Your task to perform on an android device: change text size in settings app Image 0: 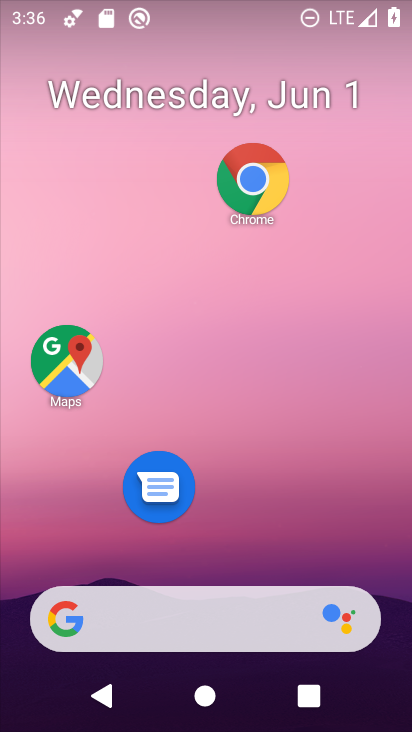
Step 0: drag from (297, 583) to (218, 176)
Your task to perform on an android device: change text size in settings app Image 1: 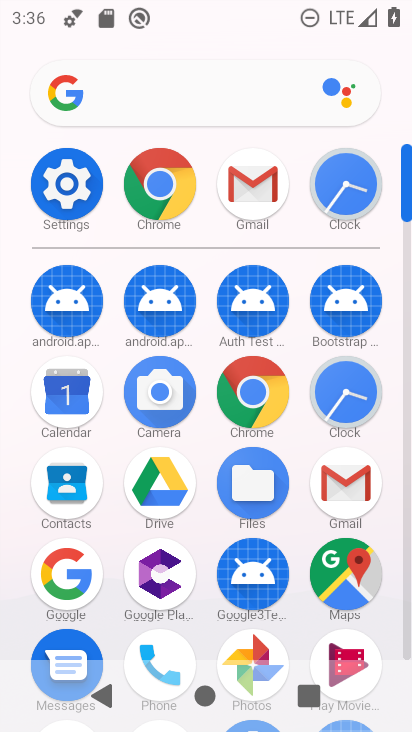
Step 1: click (79, 176)
Your task to perform on an android device: change text size in settings app Image 2: 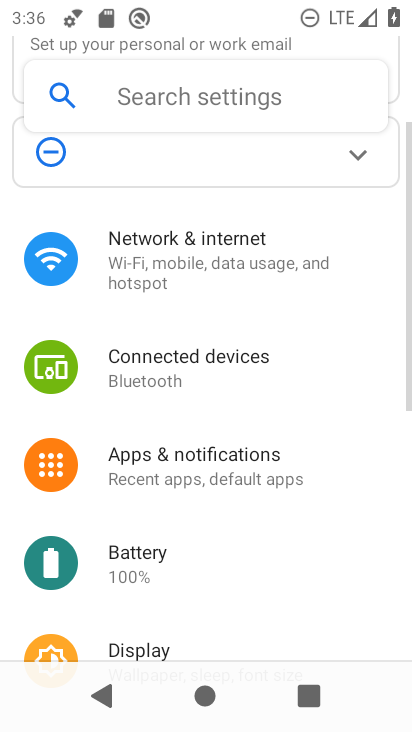
Step 2: drag from (186, 593) to (214, 188)
Your task to perform on an android device: change text size in settings app Image 3: 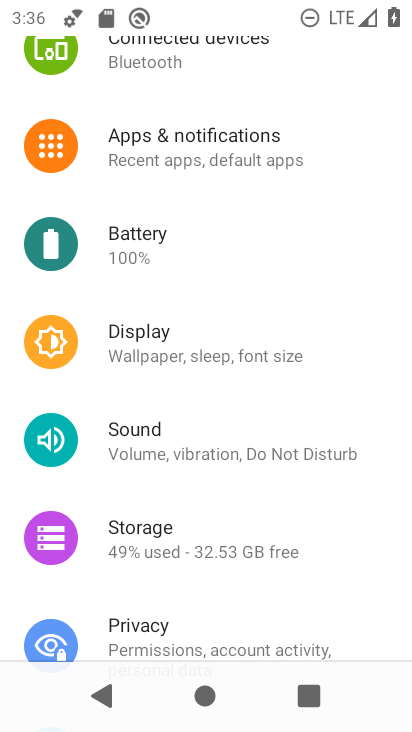
Step 3: drag from (211, 529) to (232, 226)
Your task to perform on an android device: change text size in settings app Image 4: 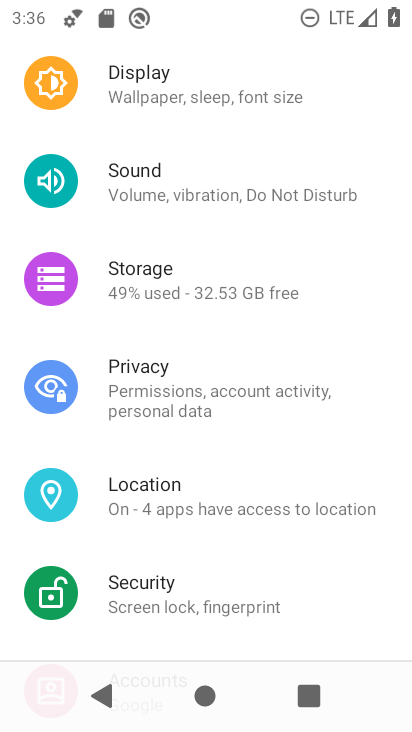
Step 4: drag from (180, 520) to (227, 258)
Your task to perform on an android device: change text size in settings app Image 5: 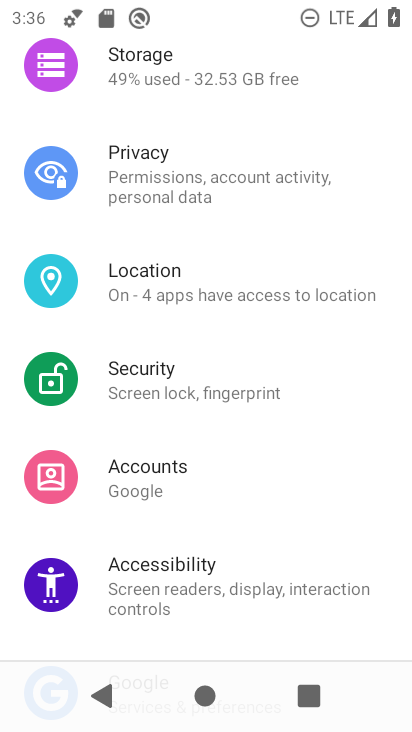
Step 5: click (153, 581)
Your task to perform on an android device: change text size in settings app Image 6: 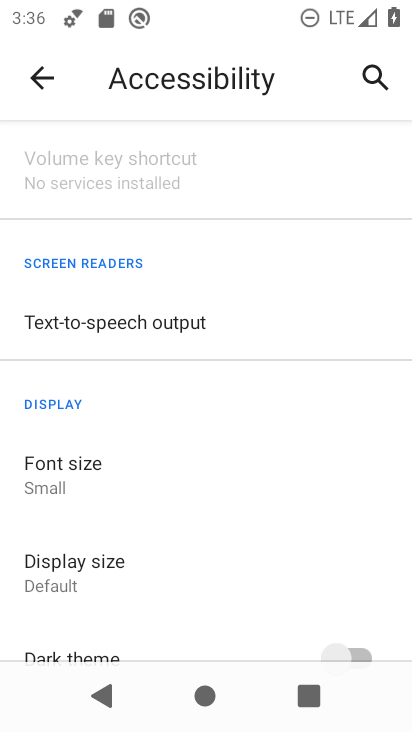
Step 6: click (98, 471)
Your task to perform on an android device: change text size in settings app Image 7: 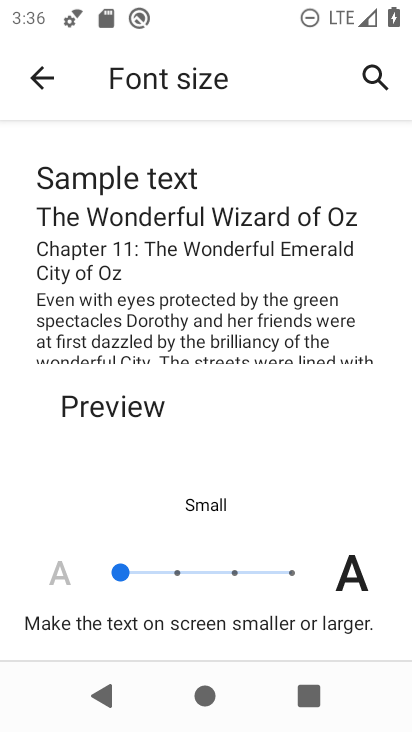
Step 7: click (160, 570)
Your task to perform on an android device: change text size in settings app Image 8: 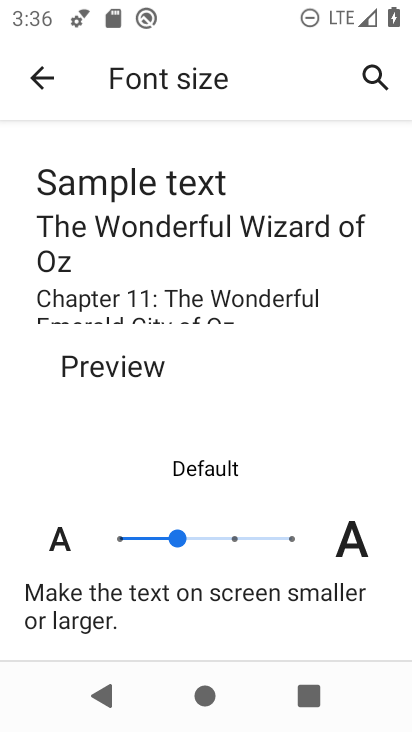
Step 8: task complete